Your task to perform on an android device: open chrome privacy settings Image 0: 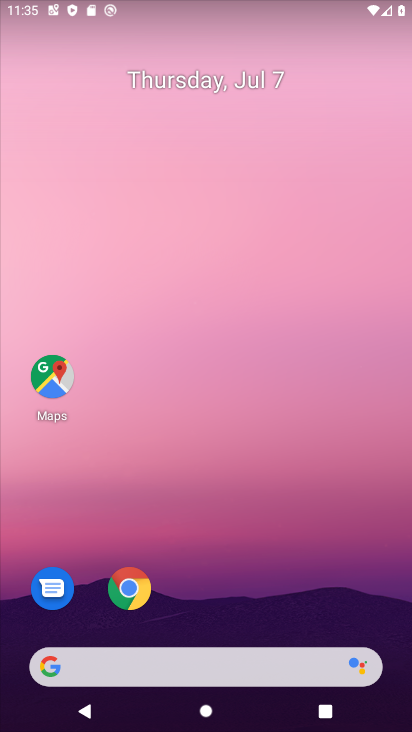
Step 0: click (131, 587)
Your task to perform on an android device: open chrome privacy settings Image 1: 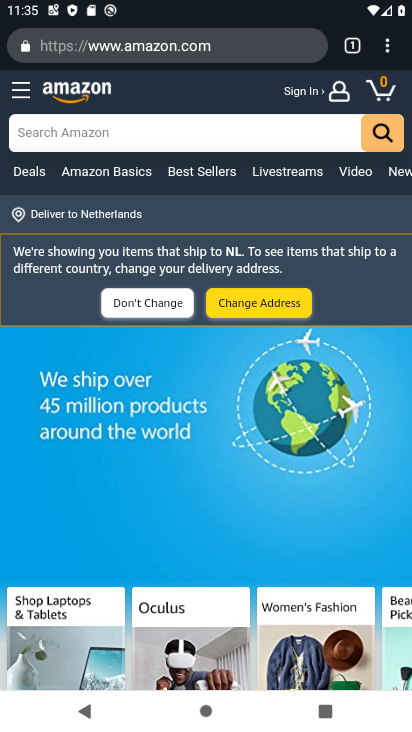
Step 1: click (383, 51)
Your task to perform on an android device: open chrome privacy settings Image 2: 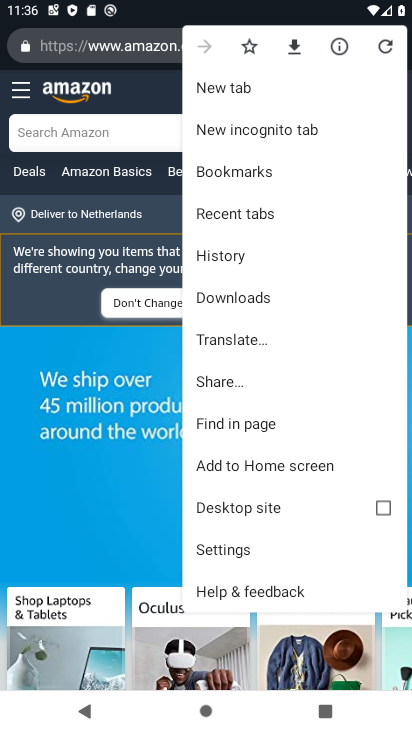
Step 2: click (238, 553)
Your task to perform on an android device: open chrome privacy settings Image 3: 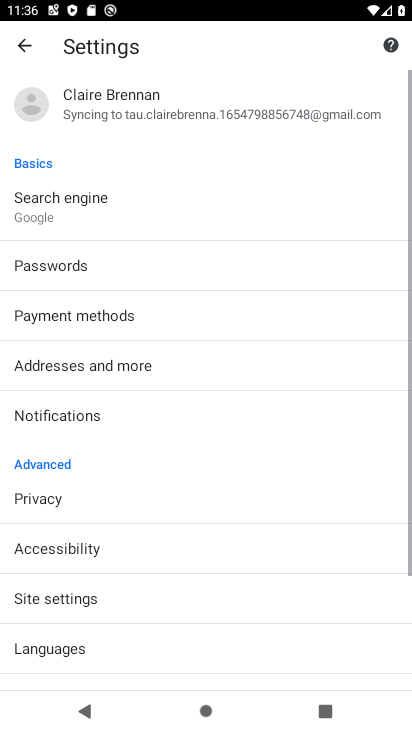
Step 3: click (66, 506)
Your task to perform on an android device: open chrome privacy settings Image 4: 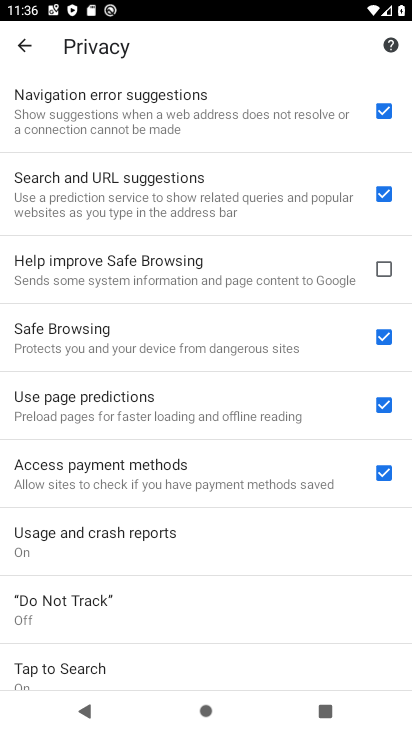
Step 4: task complete